Your task to perform on an android device: empty trash in the gmail app Image 0: 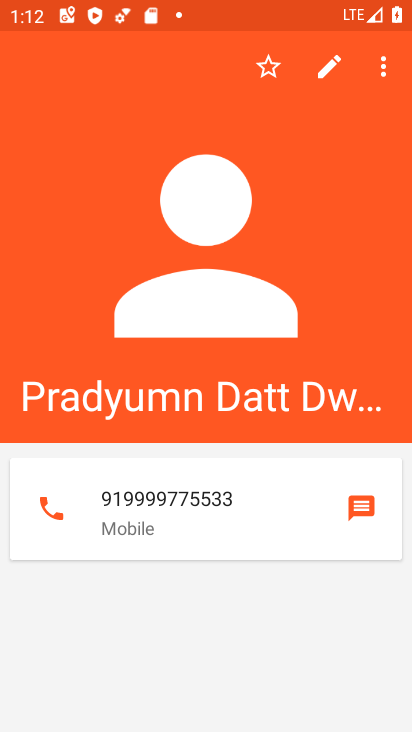
Step 0: press home button
Your task to perform on an android device: empty trash in the gmail app Image 1: 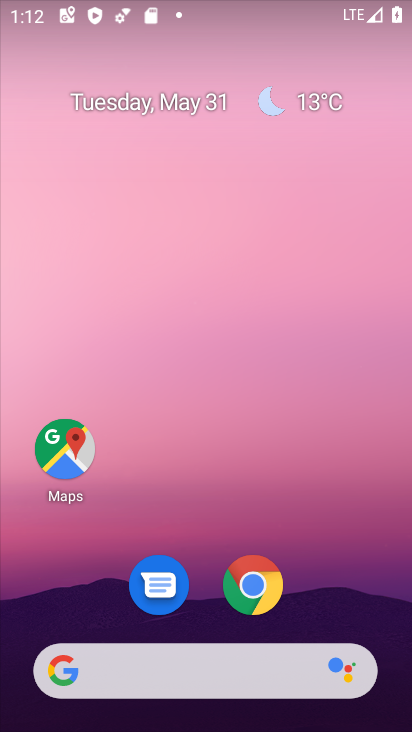
Step 1: drag from (226, 511) to (230, 36)
Your task to perform on an android device: empty trash in the gmail app Image 2: 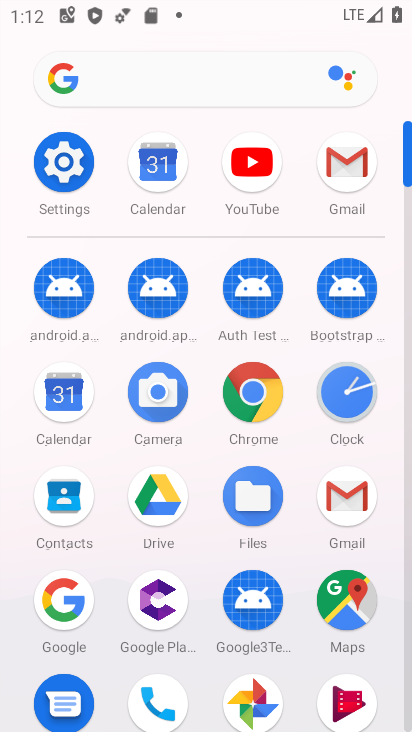
Step 2: click (348, 155)
Your task to perform on an android device: empty trash in the gmail app Image 3: 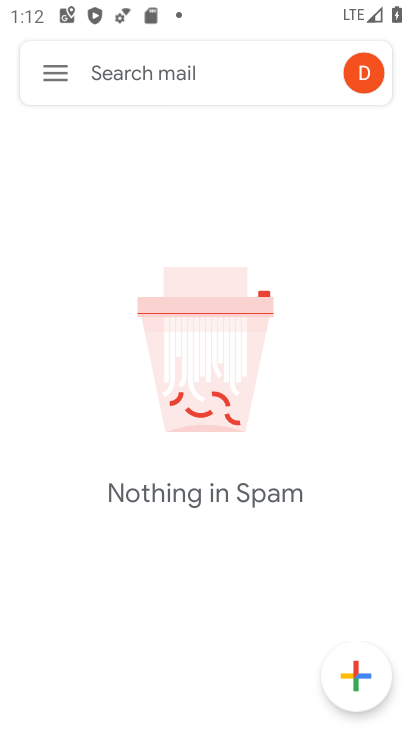
Step 3: click (52, 74)
Your task to perform on an android device: empty trash in the gmail app Image 4: 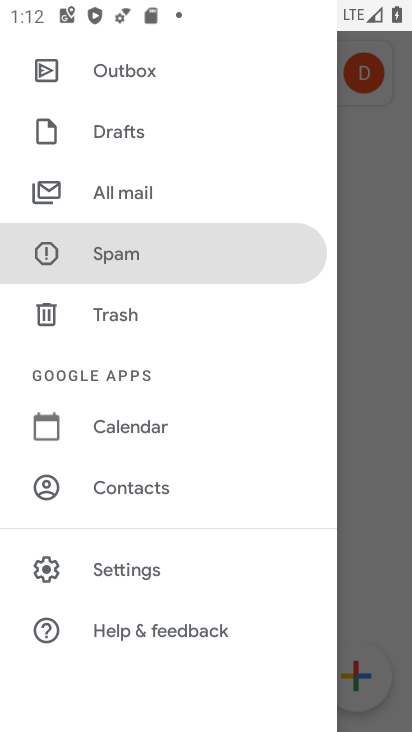
Step 4: click (92, 311)
Your task to perform on an android device: empty trash in the gmail app Image 5: 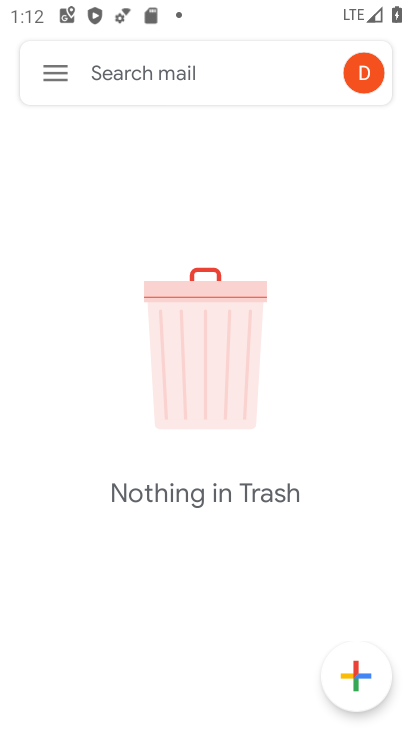
Step 5: task complete